Your task to perform on an android device: Look up the best rated 3d printer on Ali Express Image 0: 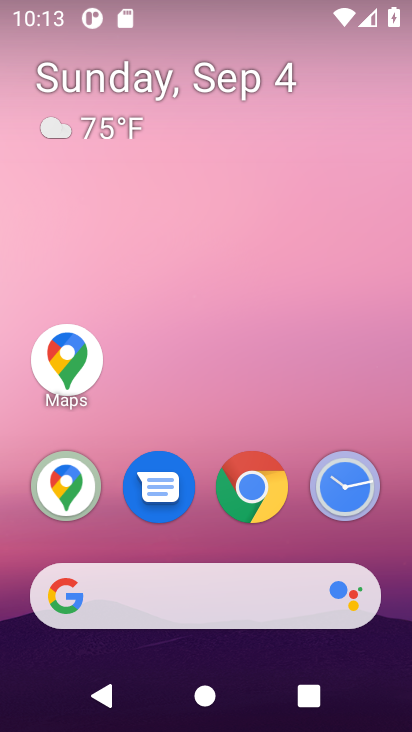
Step 0: click (90, 496)
Your task to perform on an android device: Look up the best rated 3d printer on Ali Express Image 1: 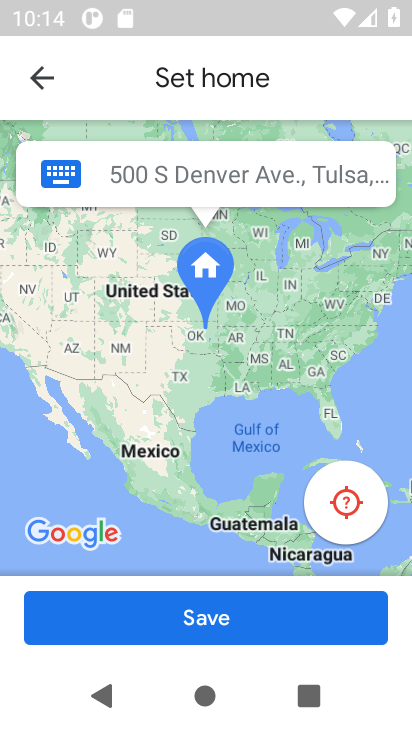
Step 1: task complete